Your task to perform on an android device: open app "Contacts" Image 0: 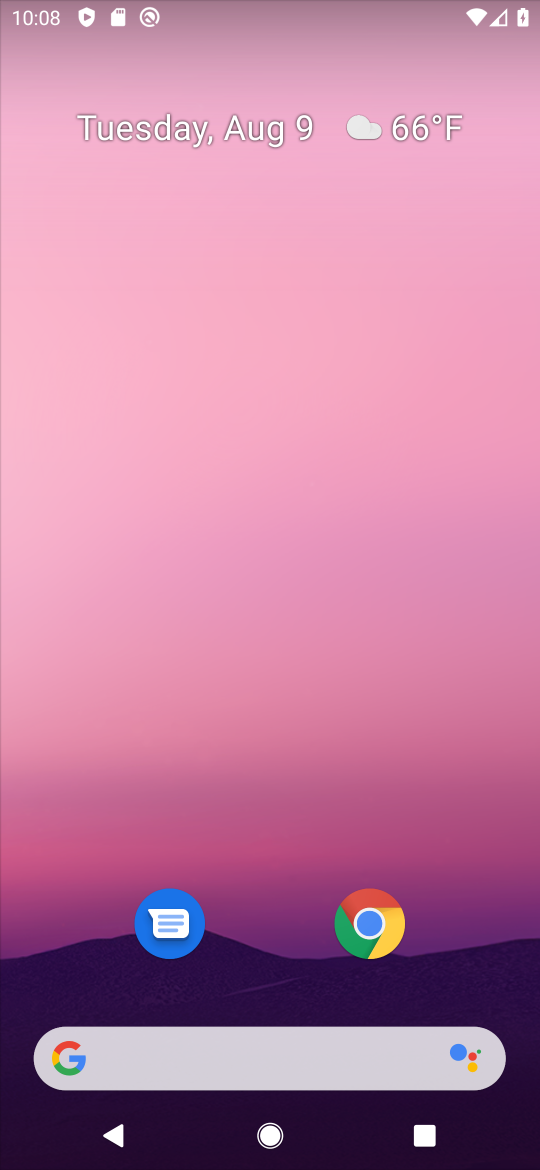
Step 0: drag from (287, 993) to (282, 44)
Your task to perform on an android device: open app "Contacts" Image 1: 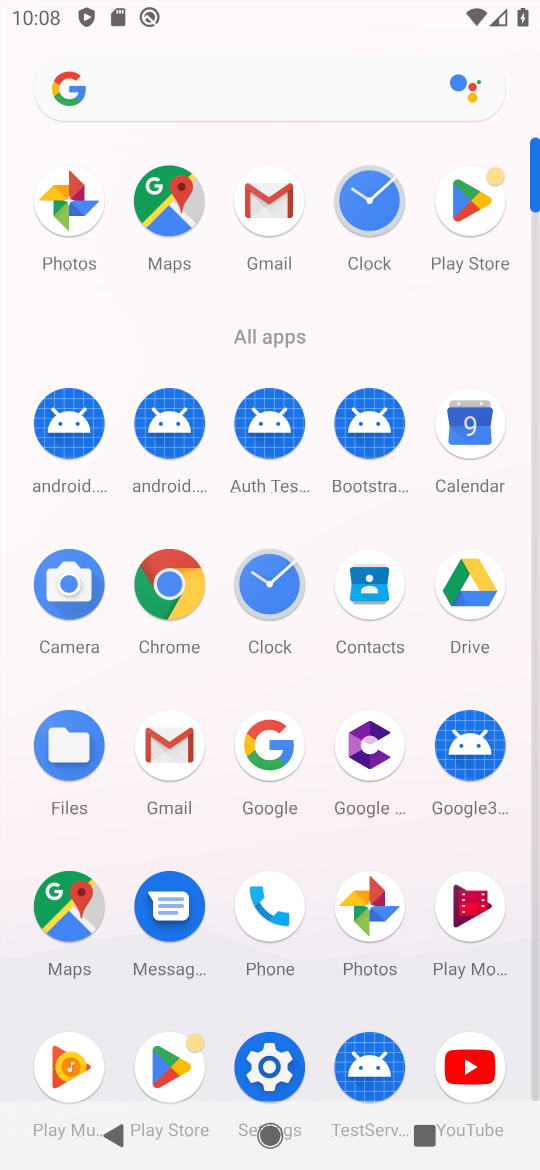
Step 1: click (169, 1061)
Your task to perform on an android device: open app "Contacts" Image 2: 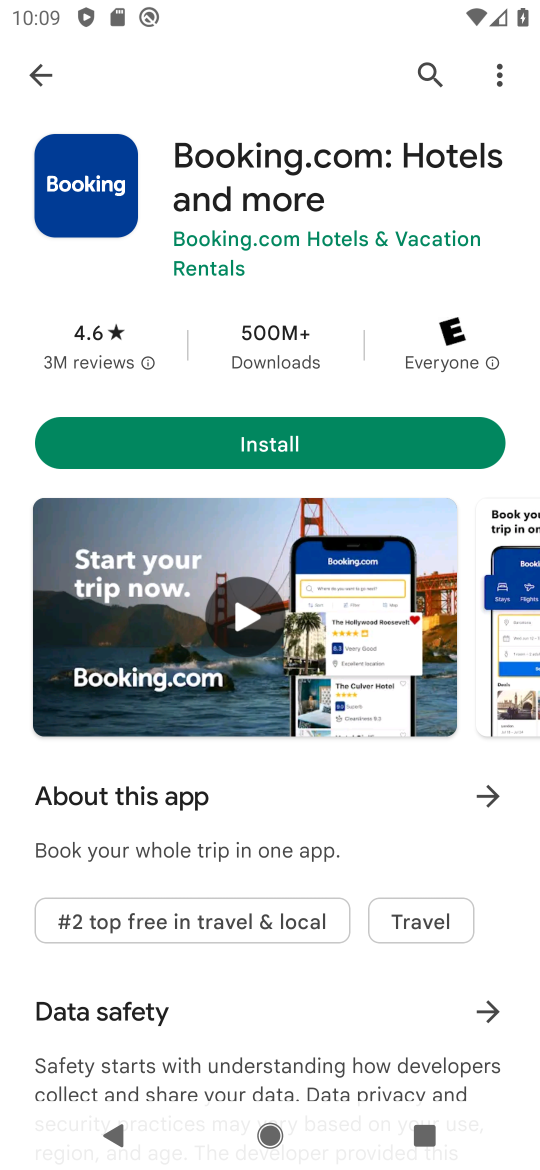
Step 2: click (48, 74)
Your task to perform on an android device: open app "Contacts" Image 3: 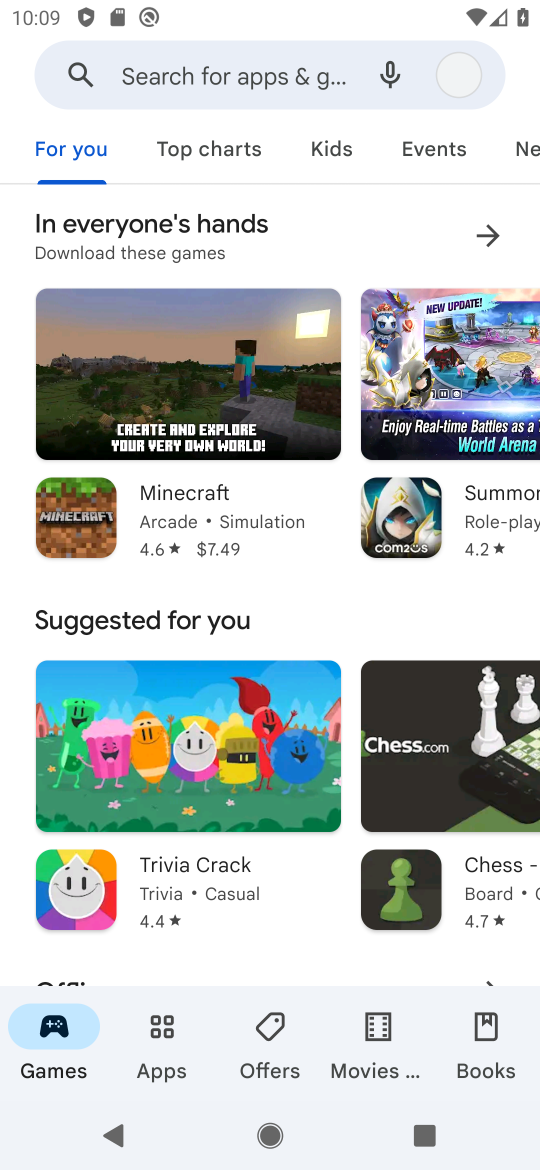
Step 3: click (226, 82)
Your task to perform on an android device: open app "Contacts" Image 4: 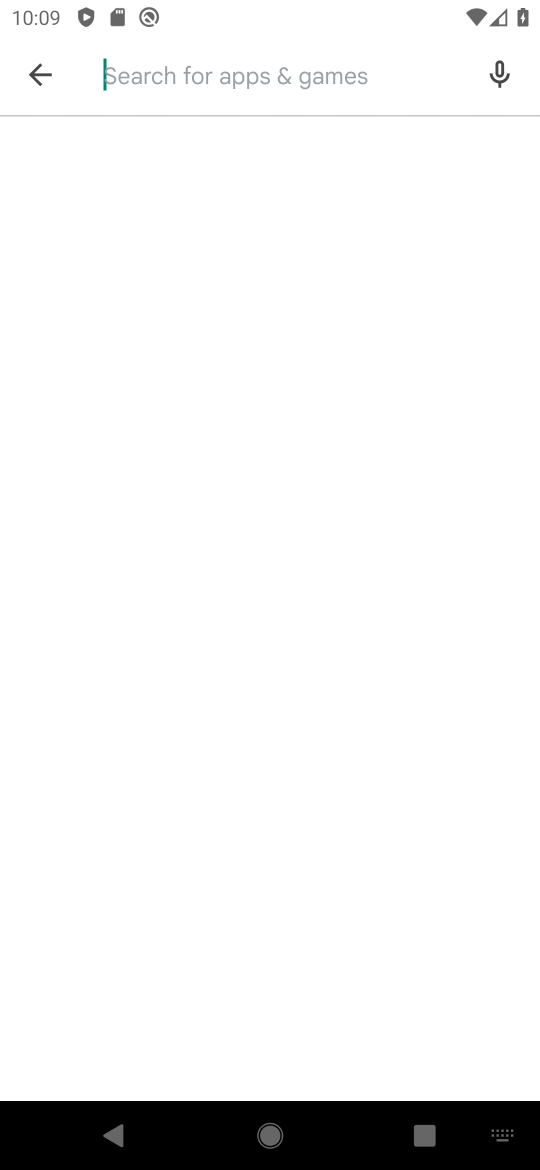
Step 4: type "Contacts"
Your task to perform on an android device: open app "Contacts" Image 5: 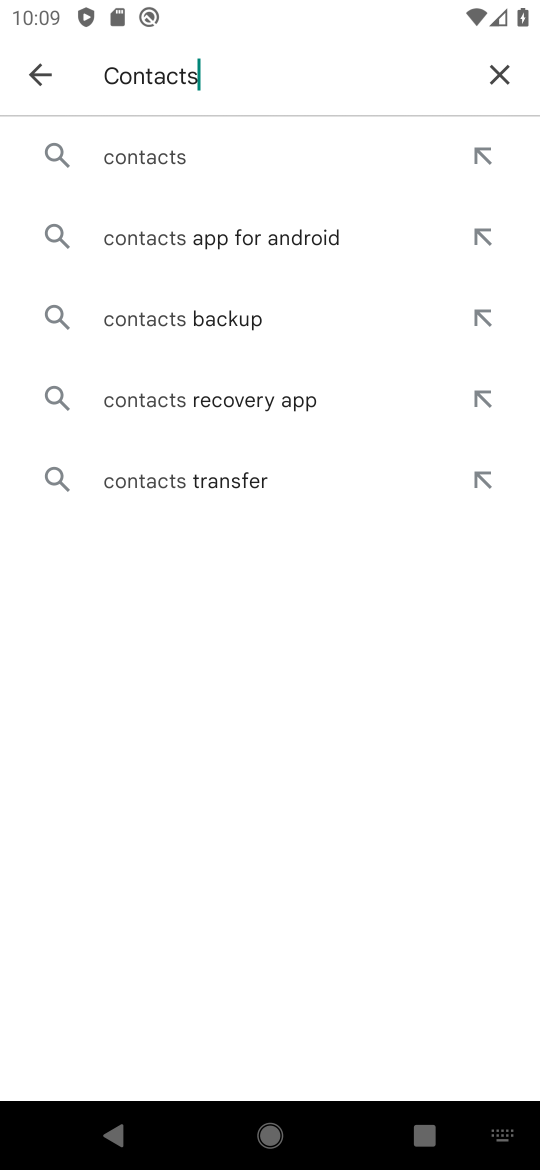
Step 5: click (170, 156)
Your task to perform on an android device: open app "Contacts" Image 6: 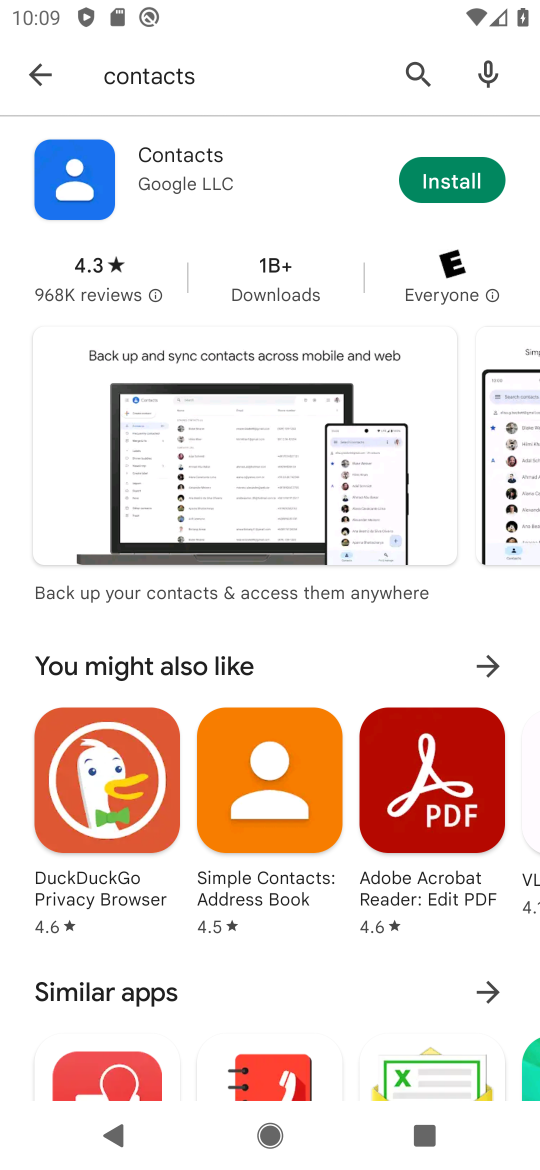
Step 6: click (451, 175)
Your task to perform on an android device: open app "Contacts" Image 7: 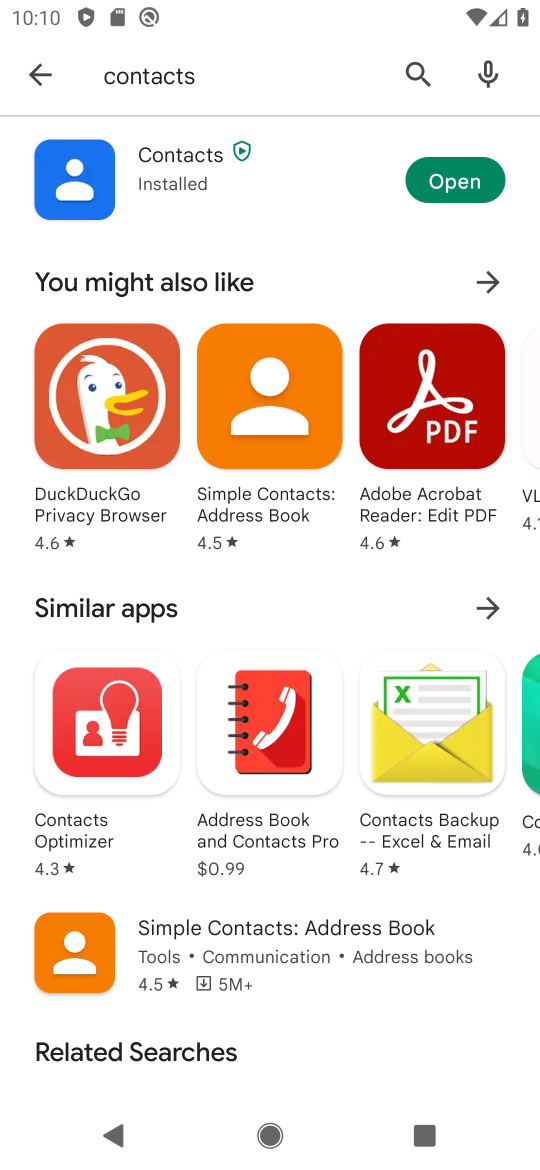
Step 7: click (465, 175)
Your task to perform on an android device: open app "Contacts" Image 8: 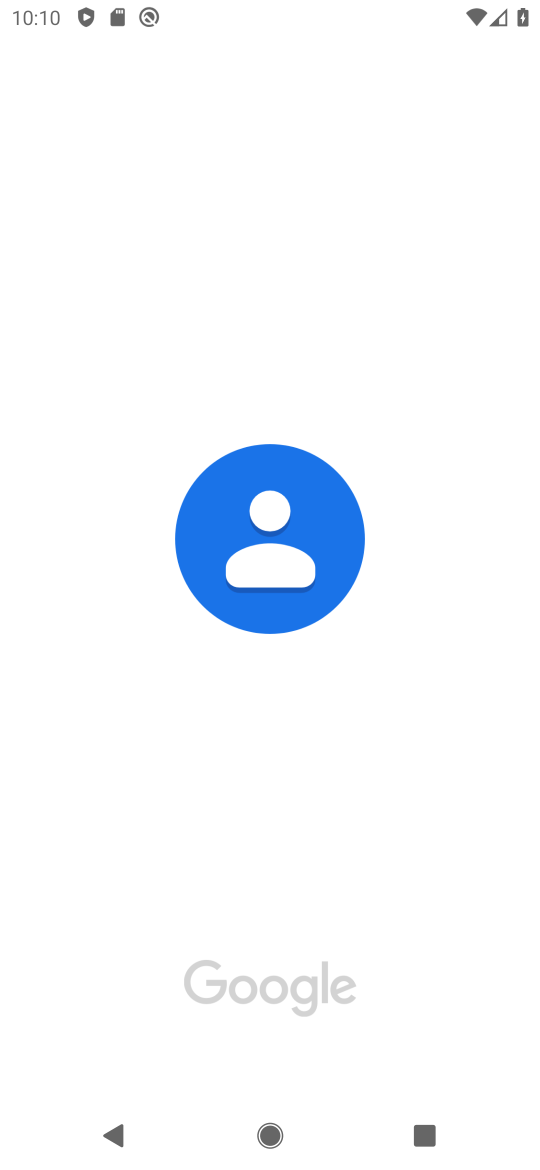
Step 8: task complete